Your task to perform on an android device: toggle translation in the chrome app Image 0: 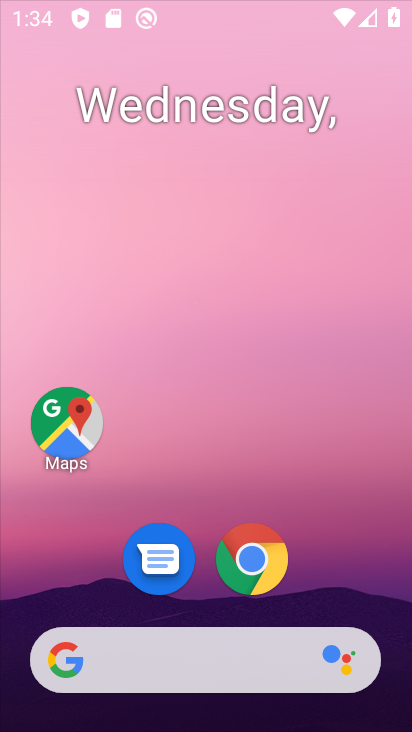
Step 0: click (33, 265)
Your task to perform on an android device: toggle translation in the chrome app Image 1: 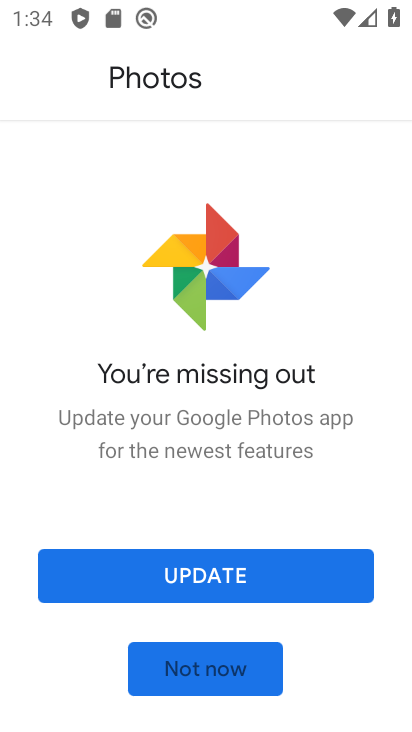
Step 1: press home button
Your task to perform on an android device: toggle translation in the chrome app Image 2: 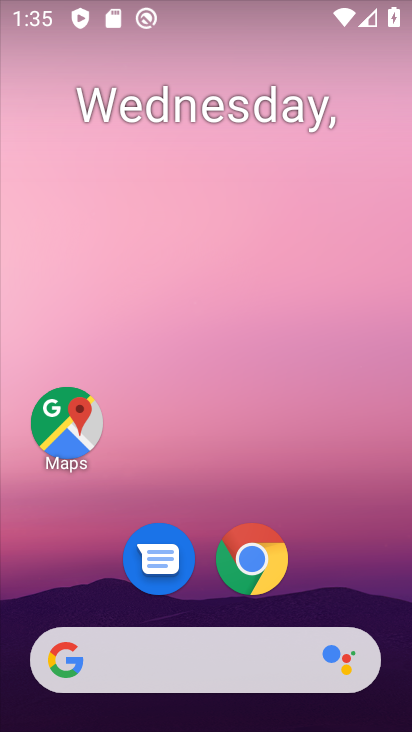
Step 2: drag from (335, 518) to (358, 14)
Your task to perform on an android device: toggle translation in the chrome app Image 3: 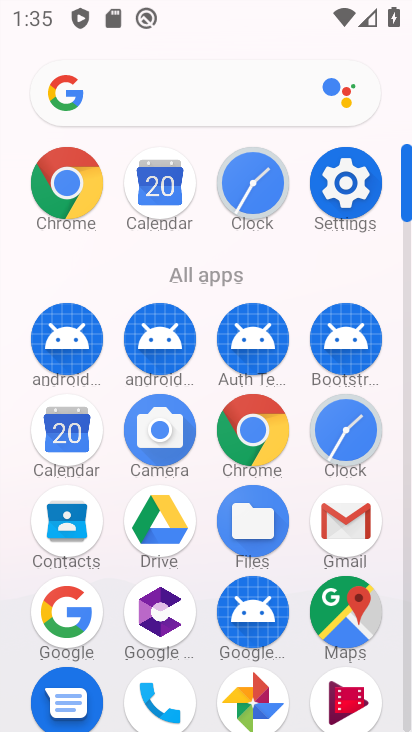
Step 3: click (73, 200)
Your task to perform on an android device: toggle translation in the chrome app Image 4: 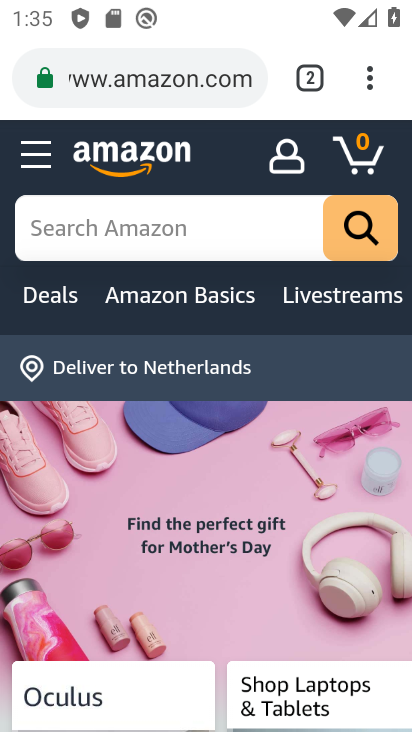
Step 4: drag from (368, 76) to (96, 603)
Your task to perform on an android device: toggle translation in the chrome app Image 5: 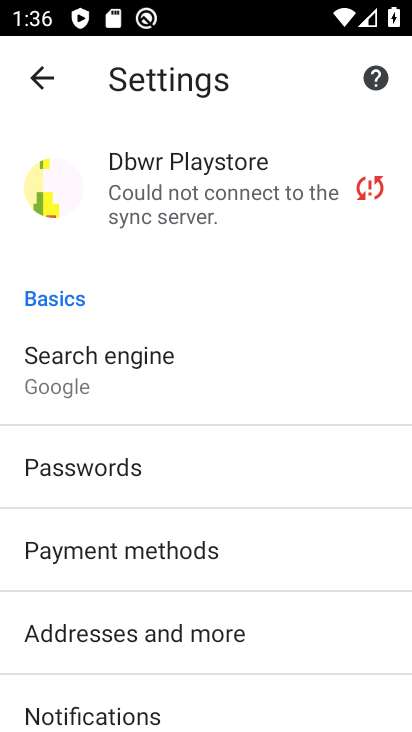
Step 5: drag from (280, 436) to (316, 188)
Your task to perform on an android device: toggle translation in the chrome app Image 6: 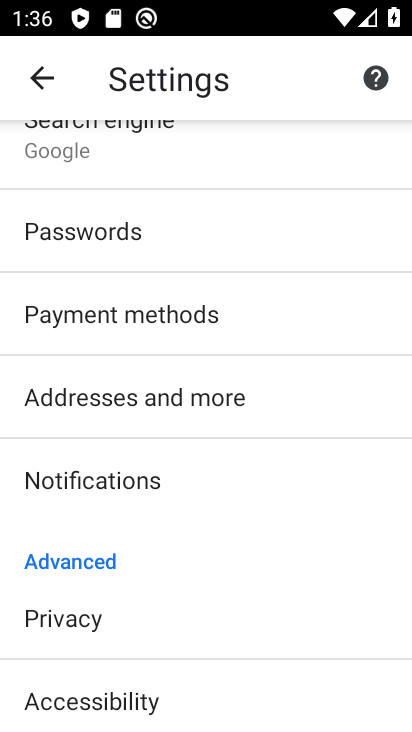
Step 6: drag from (192, 663) to (190, 415)
Your task to perform on an android device: toggle translation in the chrome app Image 7: 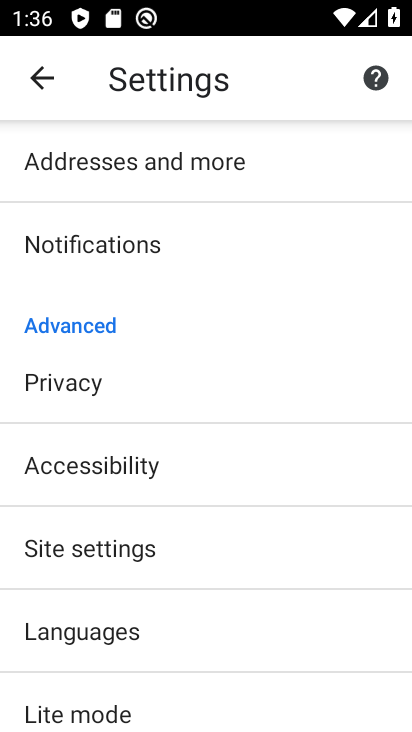
Step 7: click (204, 296)
Your task to perform on an android device: toggle translation in the chrome app Image 8: 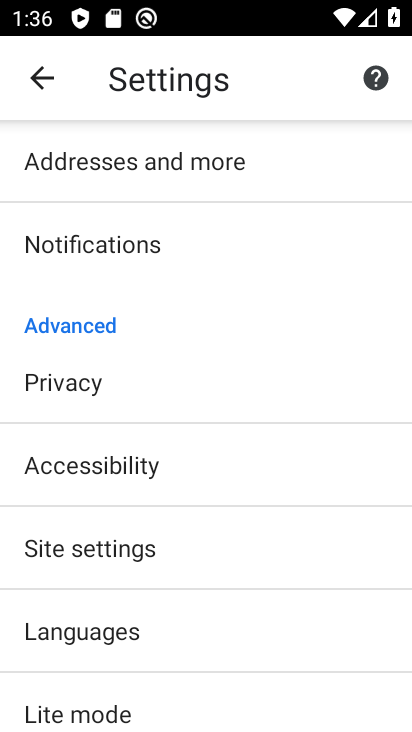
Step 8: click (161, 647)
Your task to perform on an android device: toggle translation in the chrome app Image 9: 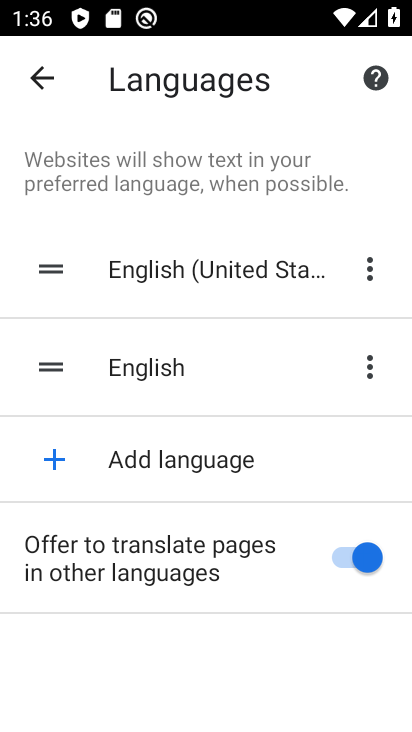
Step 9: click (293, 555)
Your task to perform on an android device: toggle translation in the chrome app Image 10: 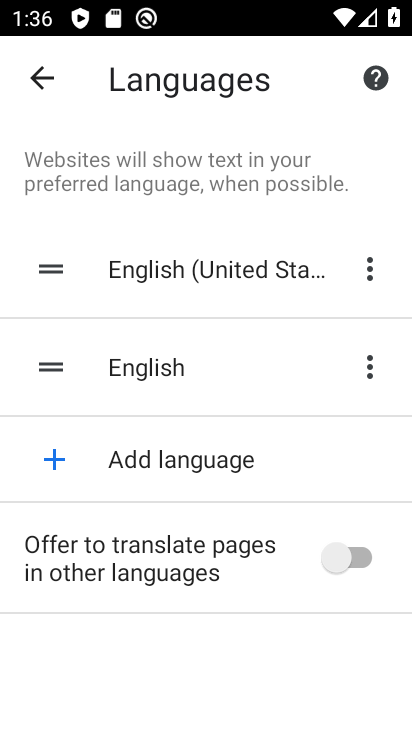
Step 10: task complete